Your task to perform on an android device: check out phone information Image 0: 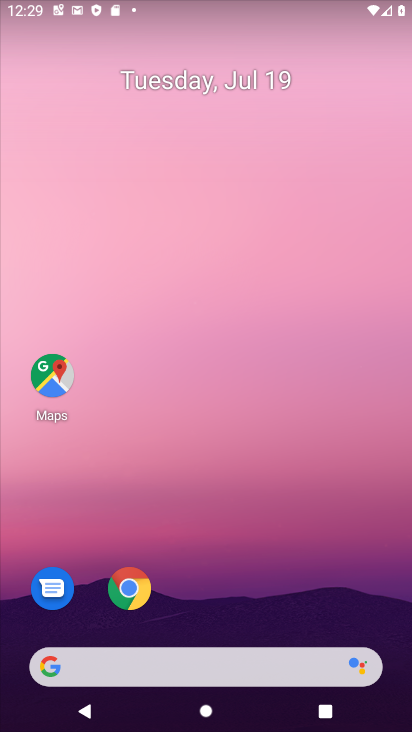
Step 0: click (192, 63)
Your task to perform on an android device: check out phone information Image 1: 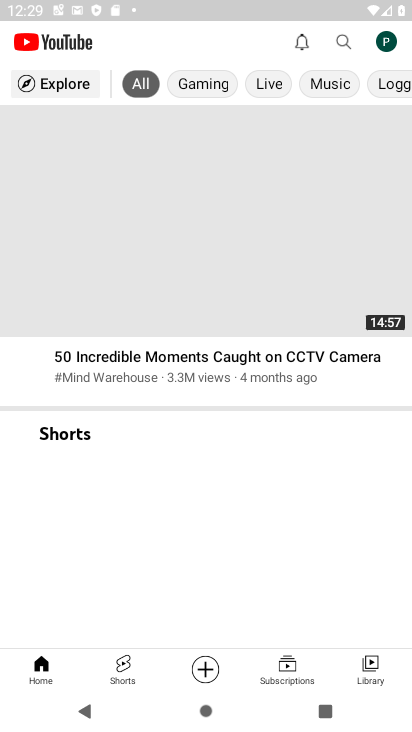
Step 1: press home button
Your task to perform on an android device: check out phone information Image 2: 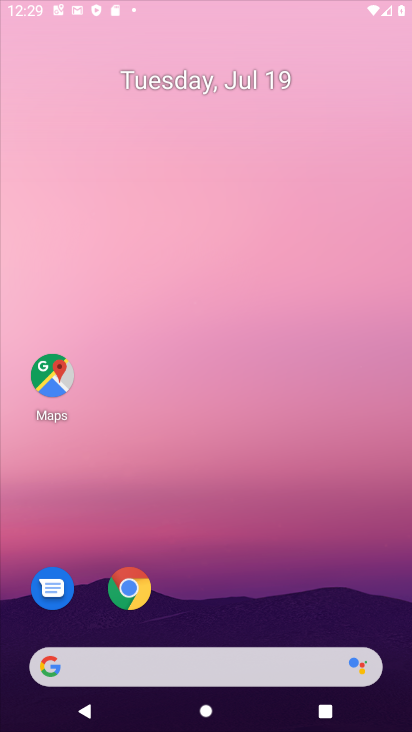
Step 2: drag from (393, 674) to (305, 63)
Your task to perform on an android device: check out phone information Image 3: 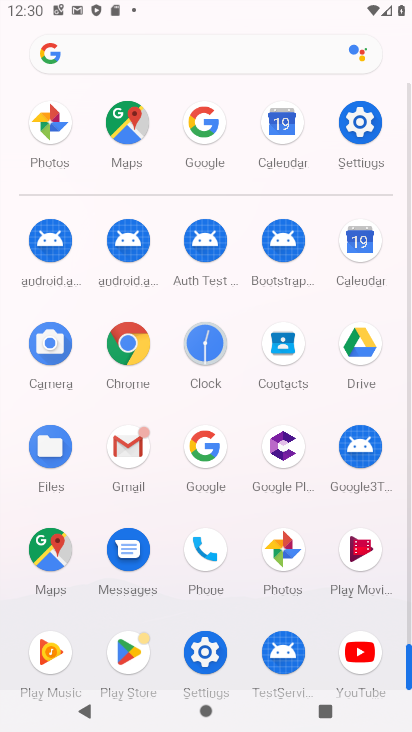
Step 3: click (210, 652)
Your task to perform on an android device: check out phone information Image 4: 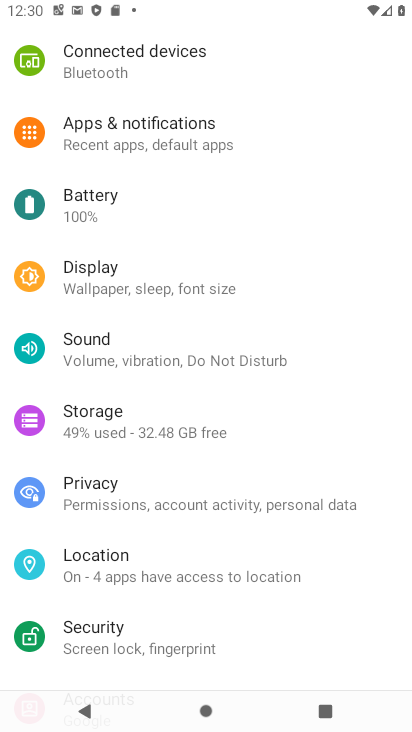
Step 4: task complete